Your task to perform on an android device: empty trash in google photos Image 0: 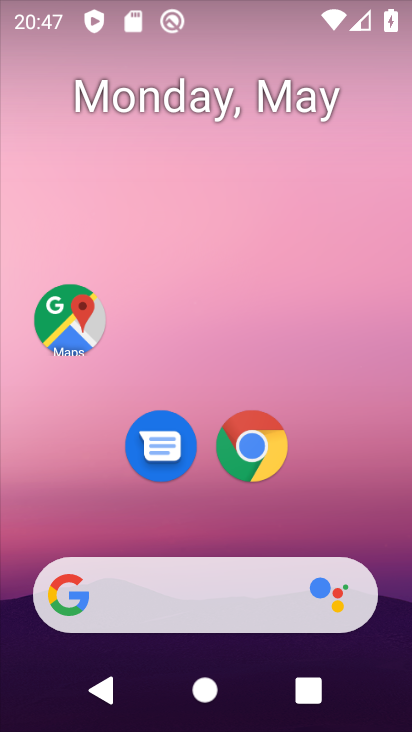
Step 0: drag from (335, 494) to (339, 189)
Your task to perform on an android device: empty trash in google photos Image 1: 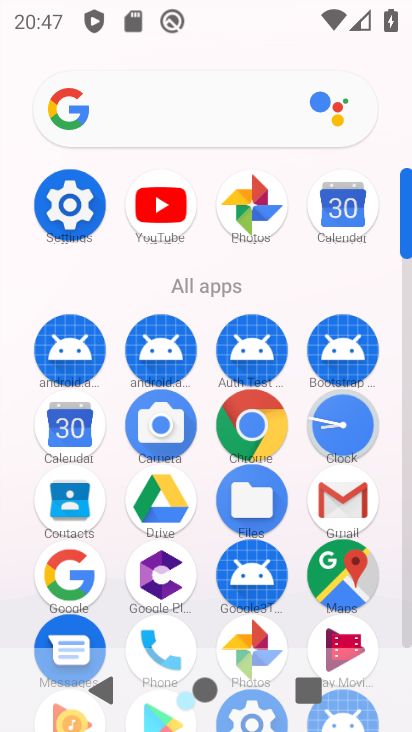
Step 1: click (252, 209)
Your task to perform on an android device: empty trash in google photos Image 2: 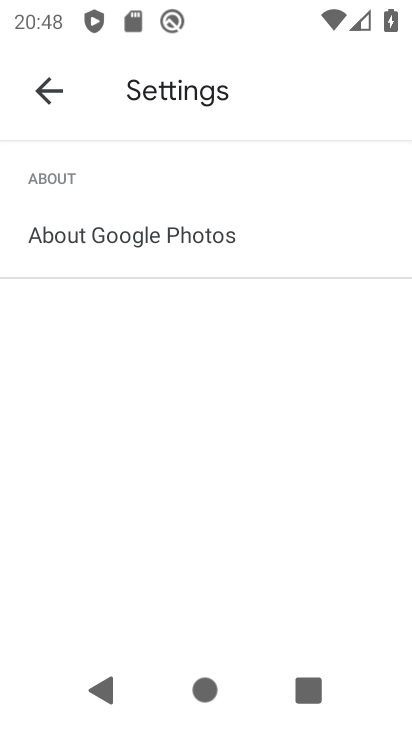
Step 2: click (58, 101)
Your task to perform on an android device: empty trash in google photos Image 3: 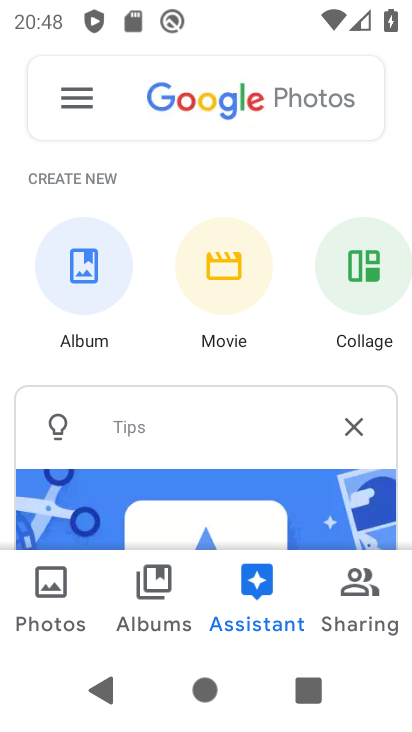
Step 3: click (59, 100)
Your task to perform on an android device: empty trash in google photos Image 4: 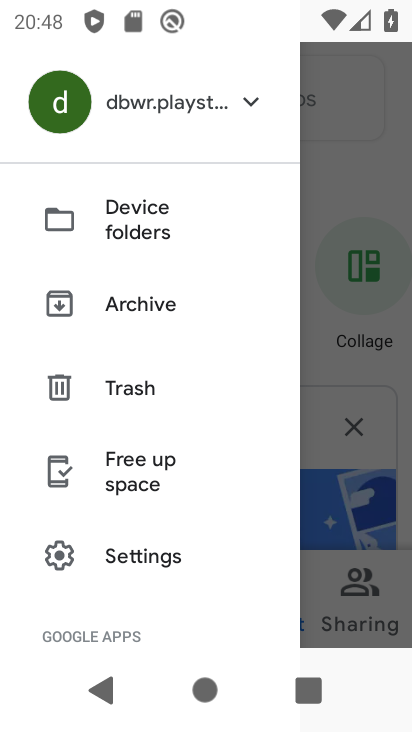
Step 4: click (140, 367)
Your task to perform on an android device: empty trash in google photos Image 5: 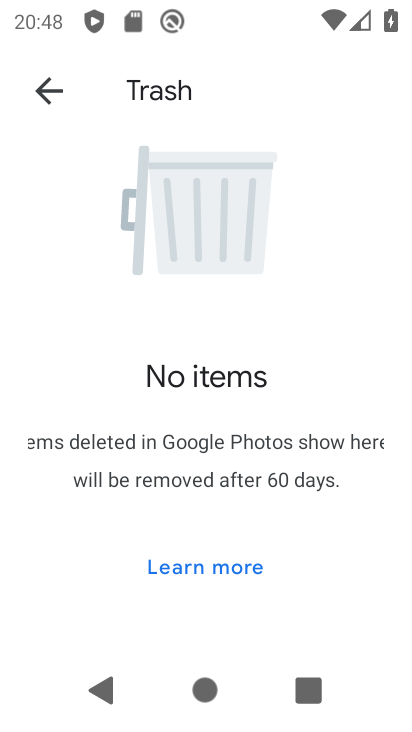
Step 5: task complete